Your task to perform on an android device: open app "Instagram" (install if not already installed) Image 0: 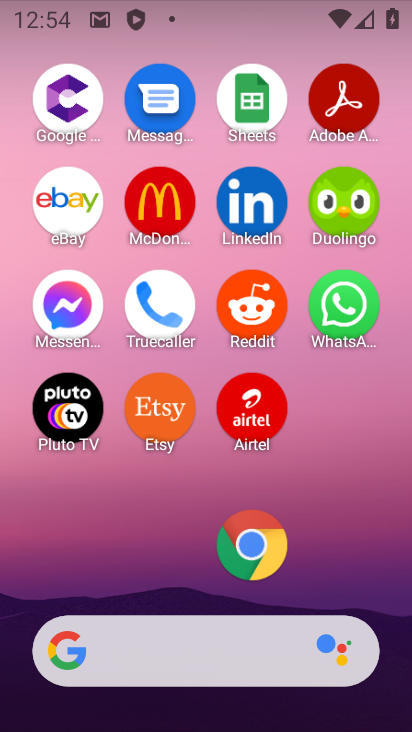
Step 0: drag from (165, 556) to (276, 10)
Your task to perform on an android device: open app "Instagram" (install if not already installed) Image 1: 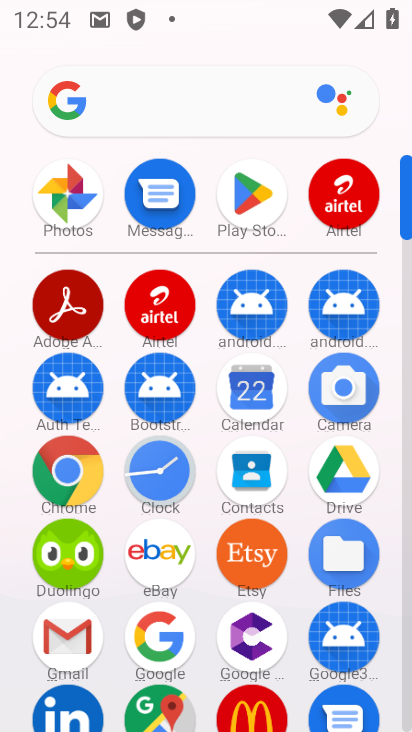
Step 1: click (270, 189)
Your task to perform on an android device: open app "Instagram" (install if not already installed) Image 2: 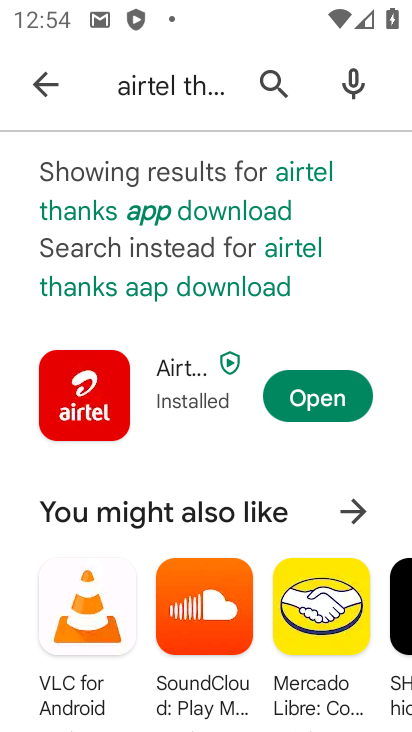
Step 2: click (281, 81)
Your task to perform on an android device: open app "Instagram" (install if not already installed) Image 3: 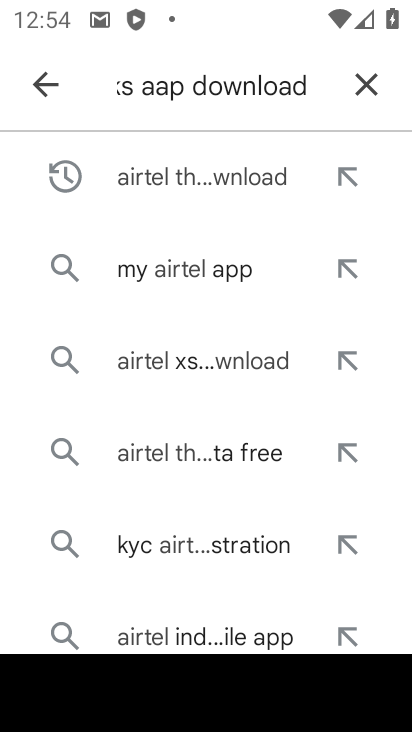
Step 3: click (373, 89)
Your task to perform on an android device: open app "Instagram" (install if not already installed) Image 4: 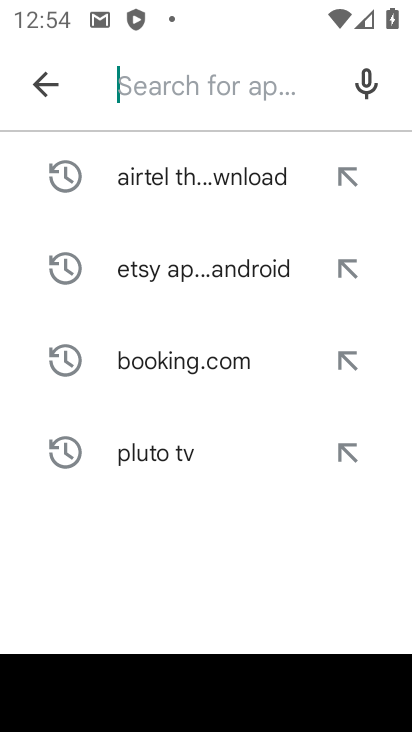
Step 4: click (168, 93)
Your task to perform on an android device: open app "Instagram" (install if not already installed) Image 5: 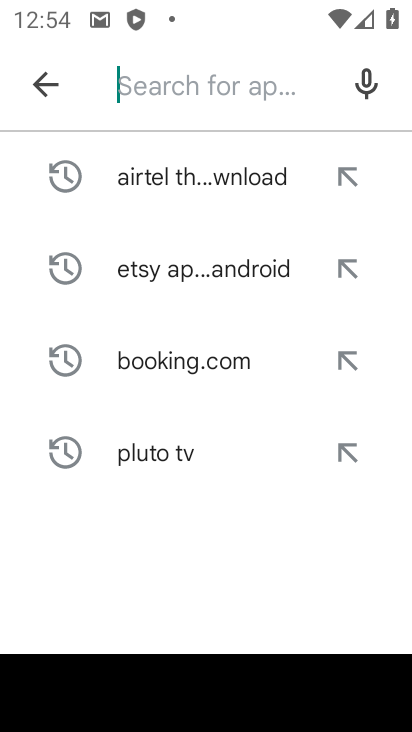
Step 5: click (143, 63)
Your task to perform on an android device: open app "Instagram" (install if not already installed) Image 6: 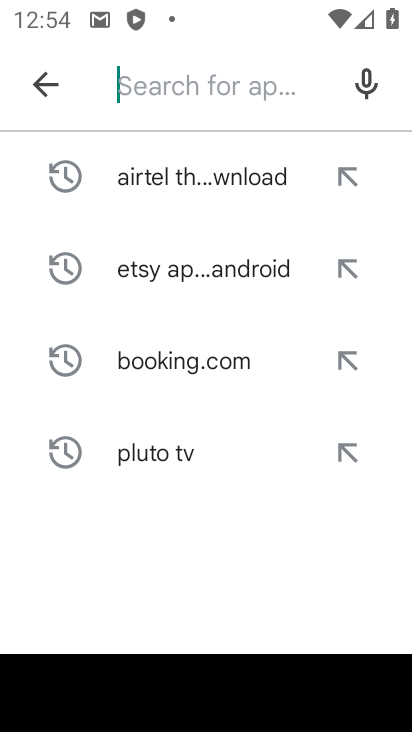
Step 6: type "Instagram"
Your task to perform on an android device: open app "Instagram" (install if not already installed) Image 7: 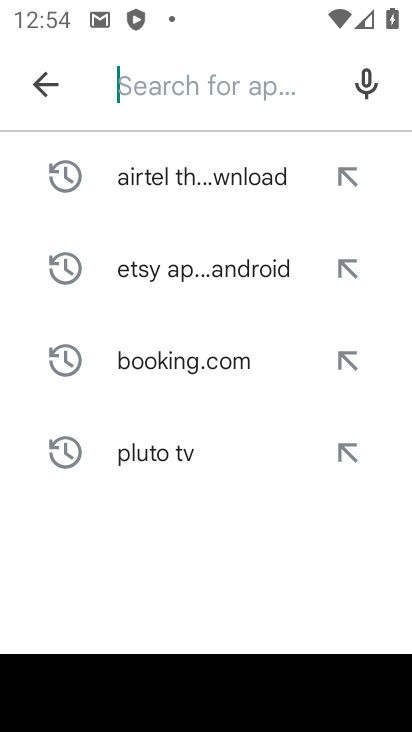
Step 7: click (108, 569)
Your task to perform on an android device: open app "Instagram" (install if not already installed) Image 8: 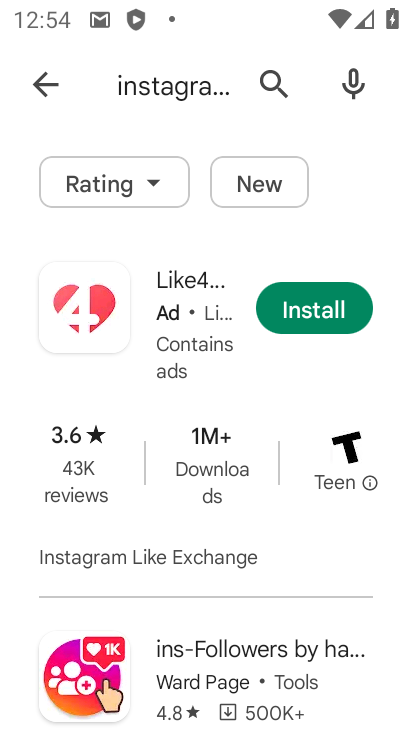
Step 8: task complete